Your task to perform on an android device: turn on the 12-hour format for clock Image 0: 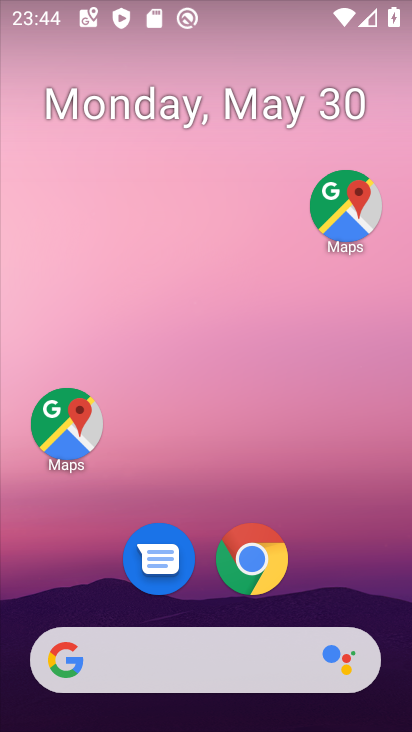
Step 0: click (251, 563)
Your task to perform on an android device: turn on the 12-hour format for clock Image 1: 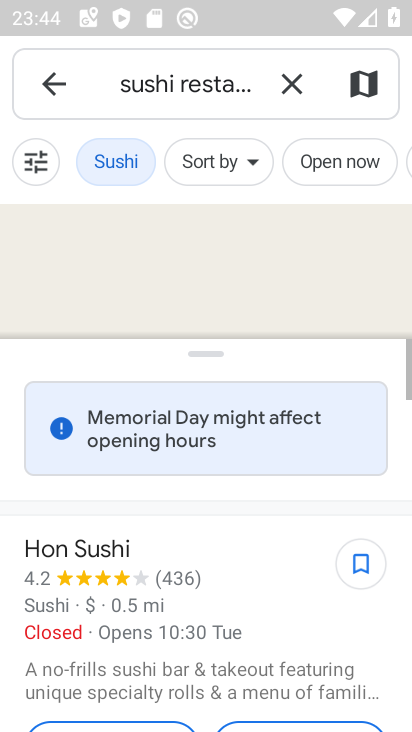
Step 1: press home button
Your task to perform on an android device: turn on the 12-hour format for clock Image 2: 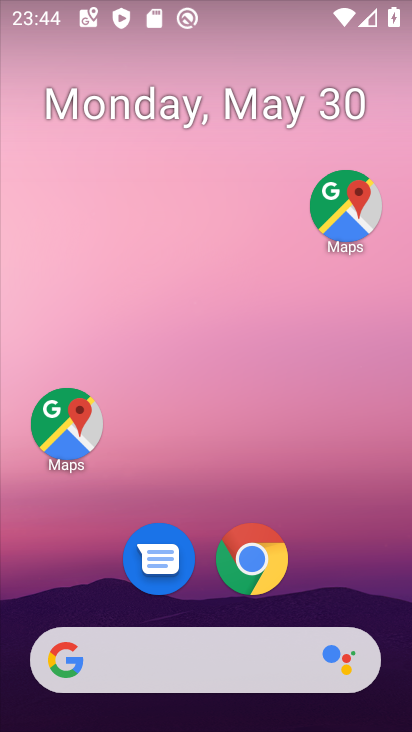
Step 2: drag from (317, 572) to (258, 84)
Your task to perform on an android device: turn on the 12-hour format for clock Image 3: 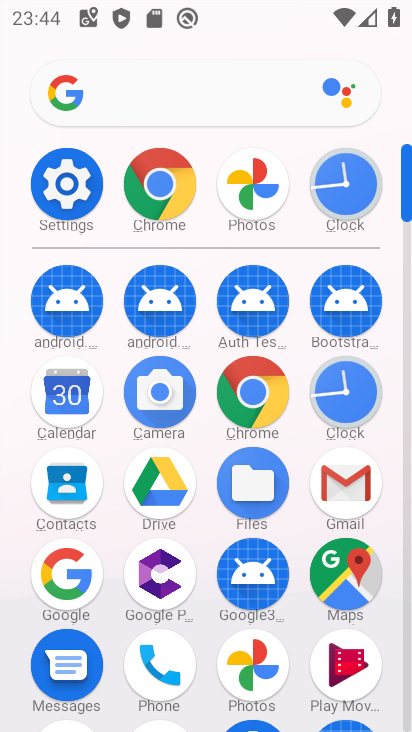
Step 3: click (345, 396)
Your task to perform on an android device: turn on the 12-hour format for clock Image 4: 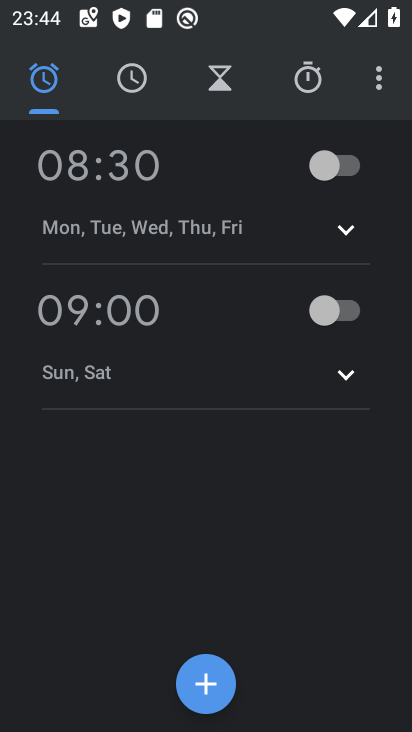
Step 4: click (377, 77)
Your task to perform on an android device: turn on the 12-hour format for clock Image 5: 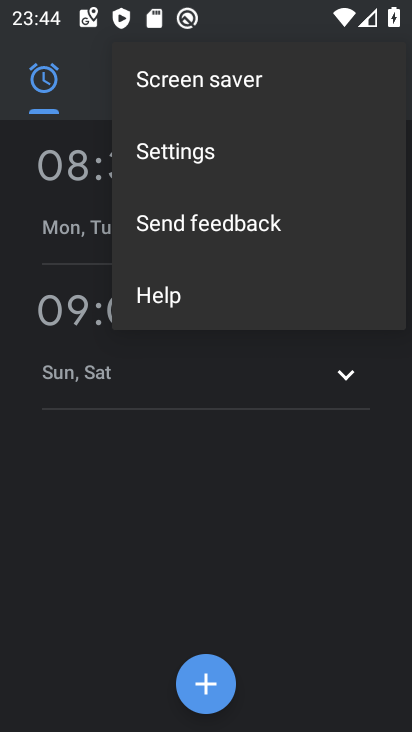
Step 5: click (192, 169)
Your task to perform on an android device: turn on the 12-hour format for clock Image 6: 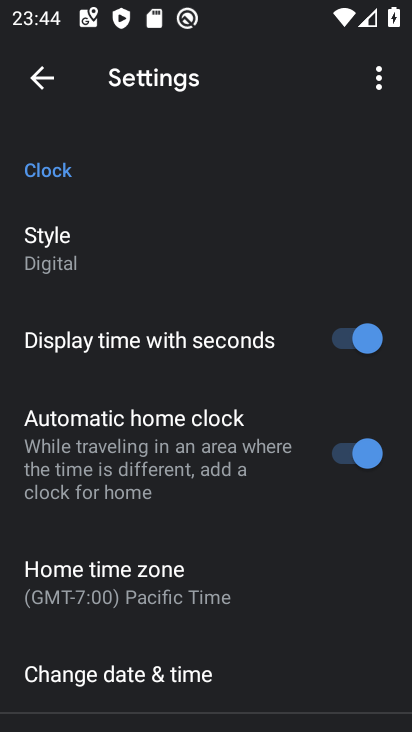
Step 6: drag from (218, 599) to (231, 195)
Your task to perform on an android device: turn on the 12-hour format for clock Image 7: 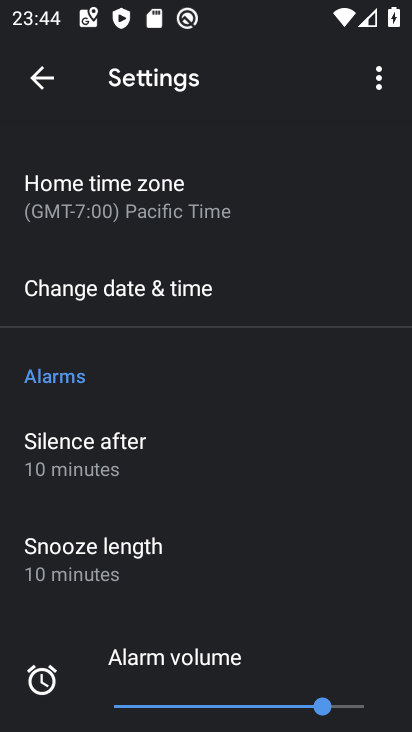
Step 7: click (136, 286)
Your task to perform on an android device: turn on the 12-hour format for clock Image 8: 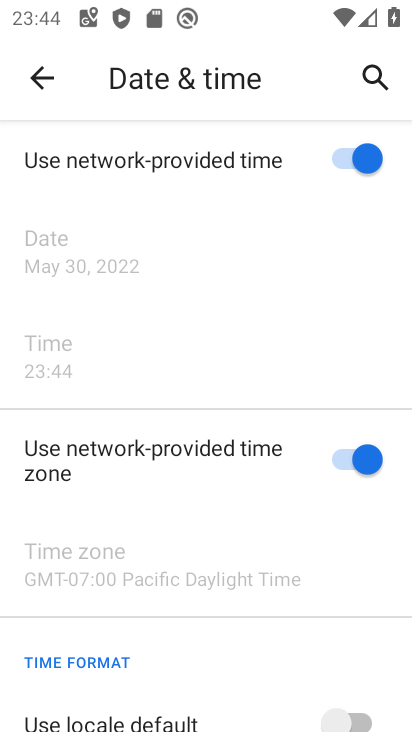
Step 8: drag from (184, 615) to (208, 256)
Your task to perform on an android device: turn on the 12-hour format for clock Image 9: 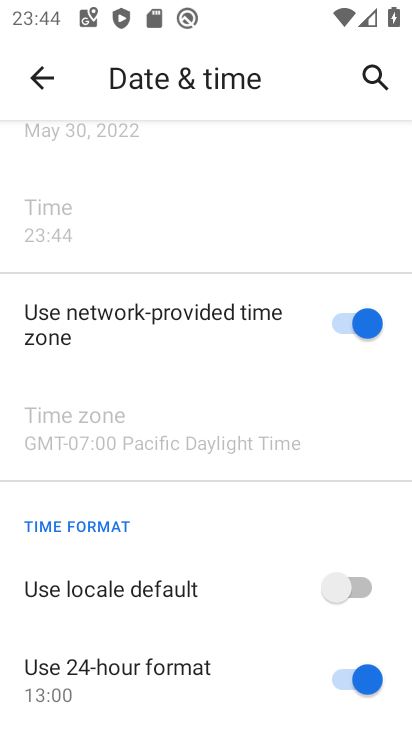
Step 9: click (366, 610)
Your task to perform on an android device: turn on the 12-hour format for clock Image 10: 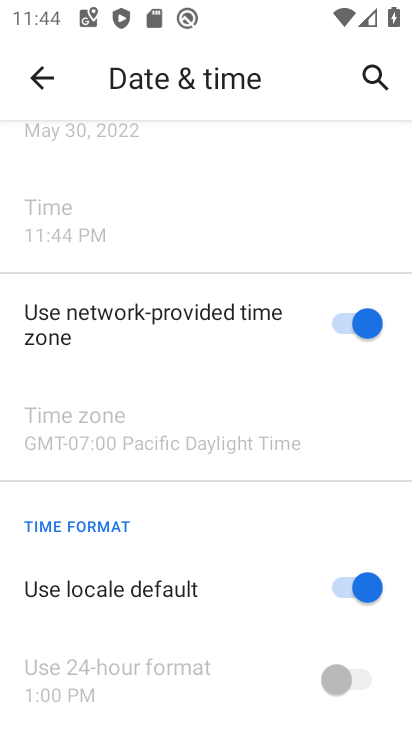
Step 10: task complete